Your task to perform on an android device: open chrome privacy settings Image 0: 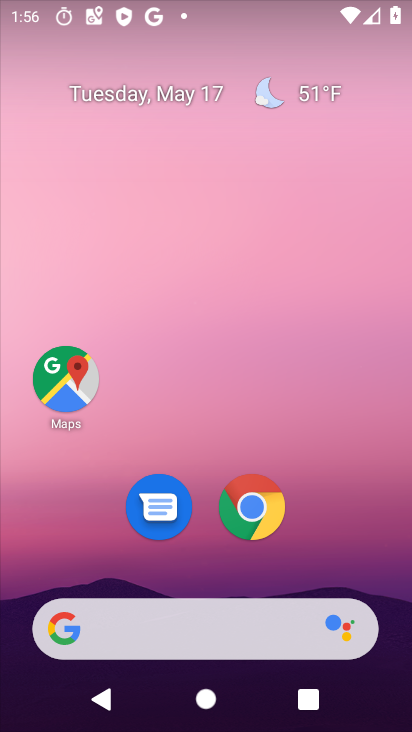
Step 0: click (253, 509)
Your task to perform on an android device: open chrome privacy settings Image 1: 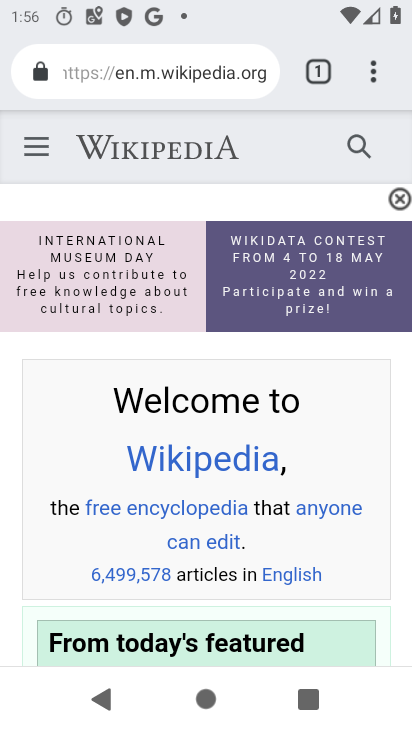
Step 1: click (369, 66)
Your task to perform on an android device: open chrome privacy settings Image 2: 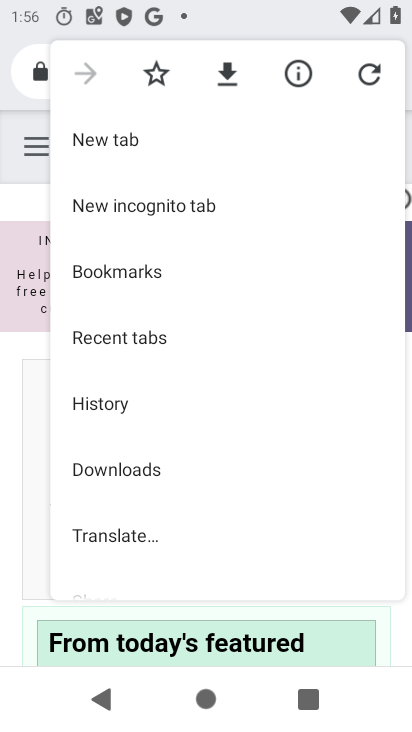
Step 2: drag from (277, 511) to (275, 137)
Your task to perform on an android device: open chrome privacy settings Image 3: 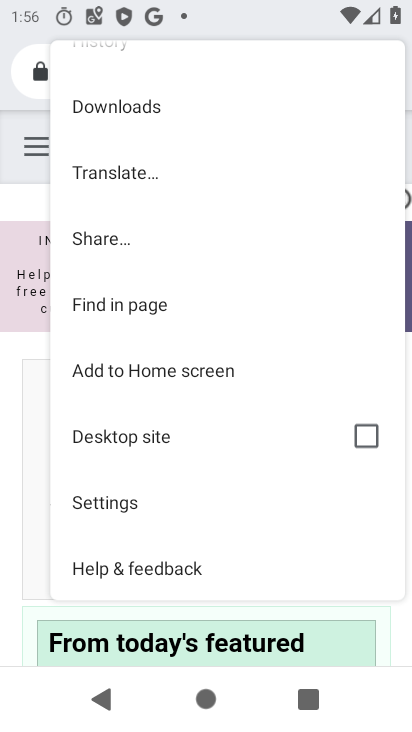
Step 3: click (112, 500)
Your task to perform on an android device: open chrome privacy settings Image 4: 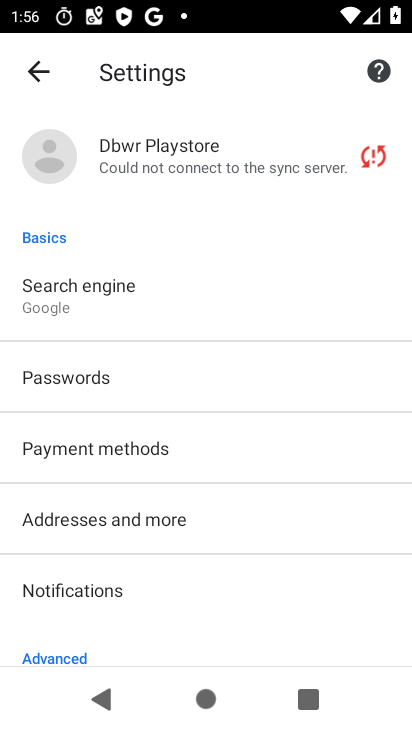
Step 4: drag from (220, 580) to (212, 288)
Your task to perform on an android device: open chrome privacy settings Image 5: 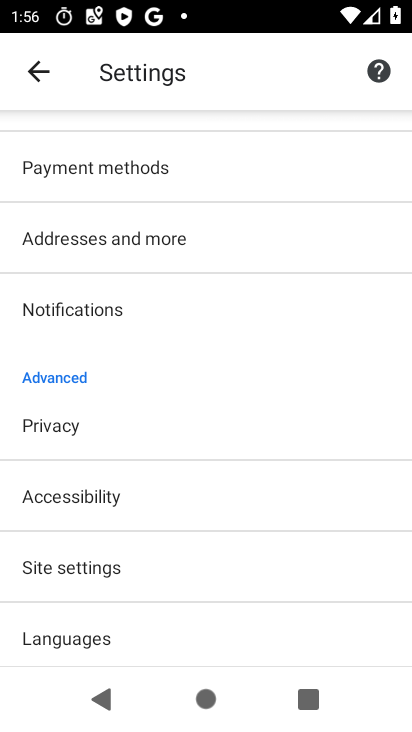
Step 5: click (100, 432)
Your task to perform on an android device: open chrome privacy settings Image 6: 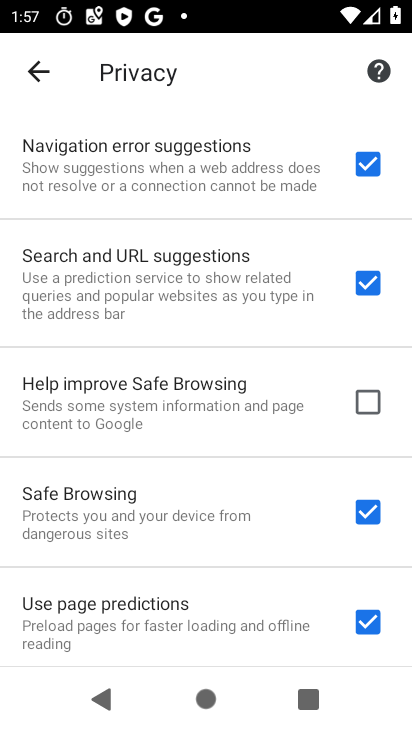
Step 6: task complete